Your task to perform on an android device: add a contact Image 0: 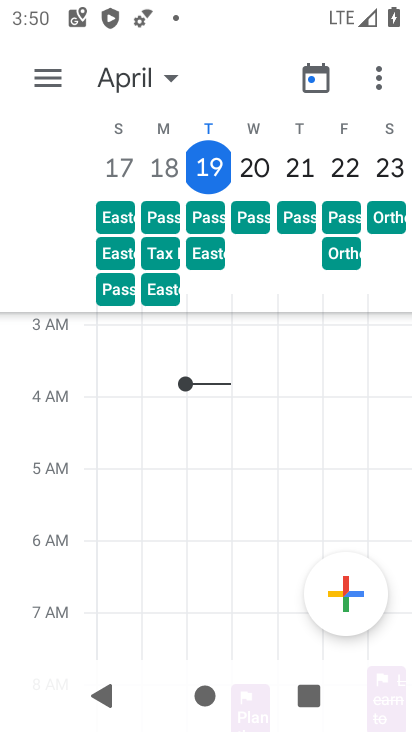
Step 0: press home button
Your task to perform on an android device: add a contact Image 1: 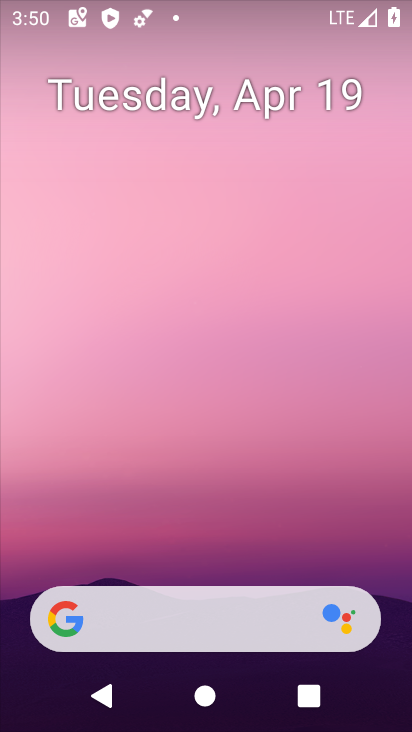
Step 1: drag from (240, 535) to (324, 131)
Your task to perform on an android device: add a contact Image 2: 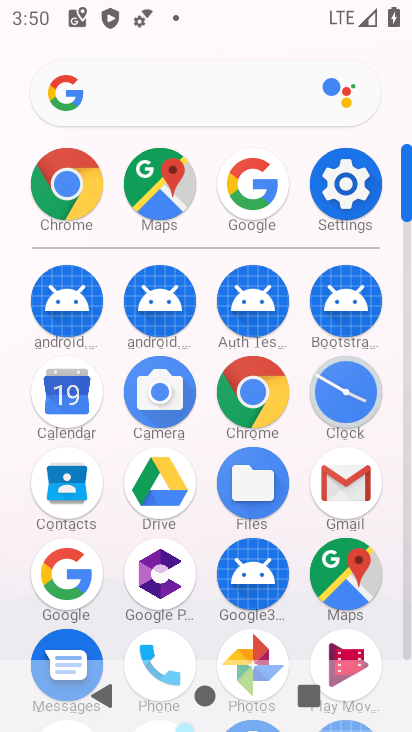
Step 2: click (64, 482)
Your task to perform on an android device: add a contact Image 3: 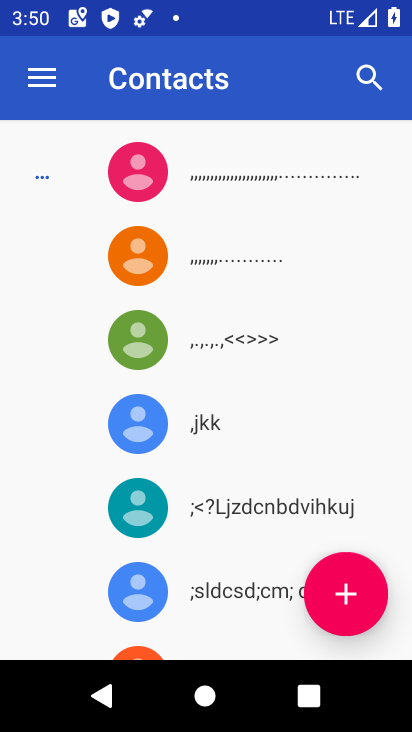
Step 3: click (341, 591)
Your task to perform on an android device: add a contact Image 4: 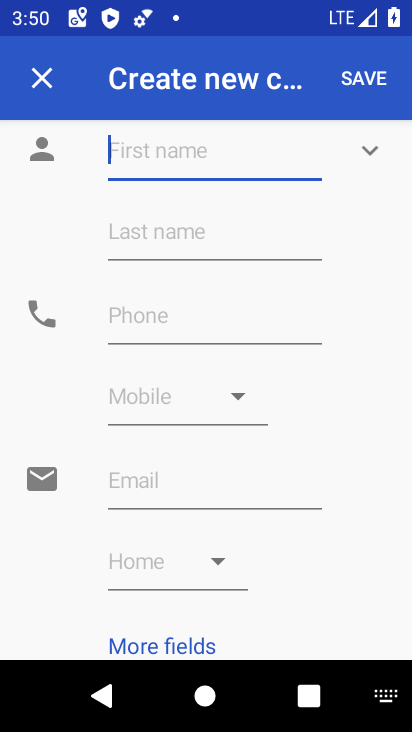
Step 4: click (203, 167)
Your task to perform on an android device: add a contact Image 5: 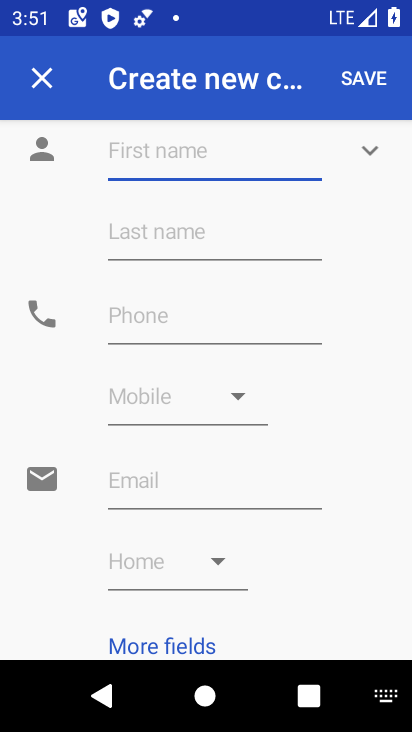
Step 5: type "Shahnawzudiqui"
Your task to perform on an android device: add a contact Image 6: 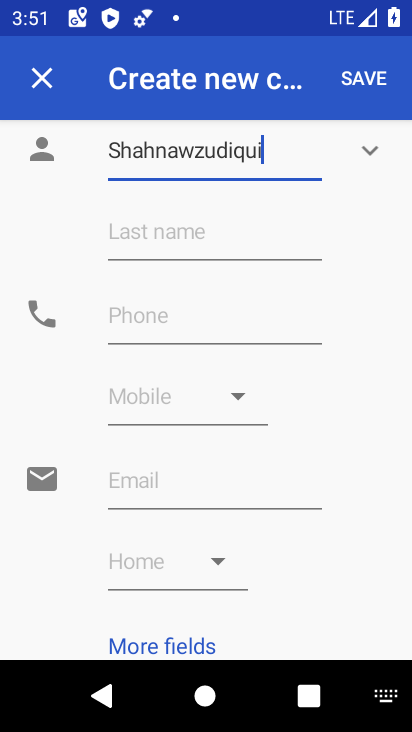
Step 6: type "Hussain"
Your task to perform on an android device: add a contact Image 7: 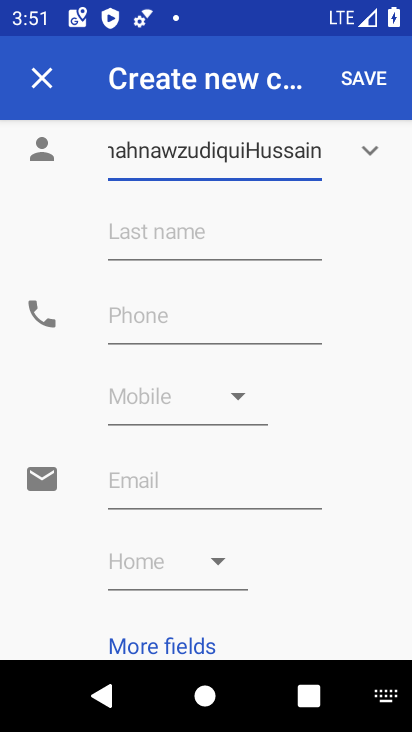
Step 7: click (137, 241)
Your task to perform on an android device: add a contact Image 8: 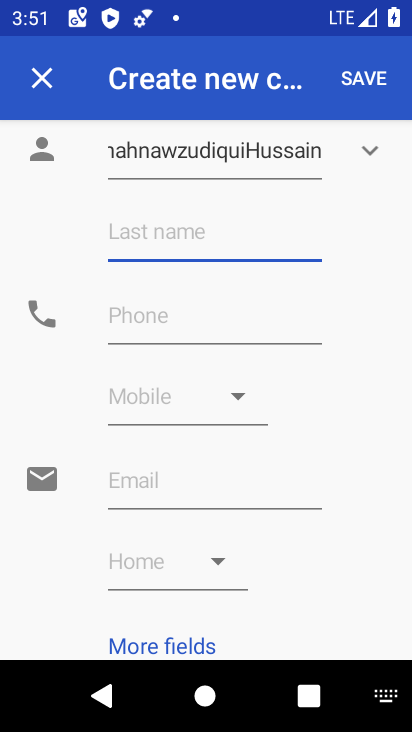
Step 8: type "Iqbal"
Your task to perform on an android device: add a contact Image 9: 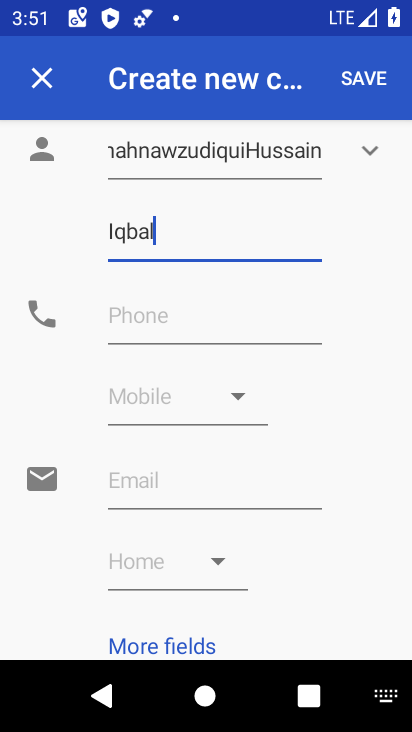
Step 9: type ""
Your task to perform on an android device: add a contact Image 10: 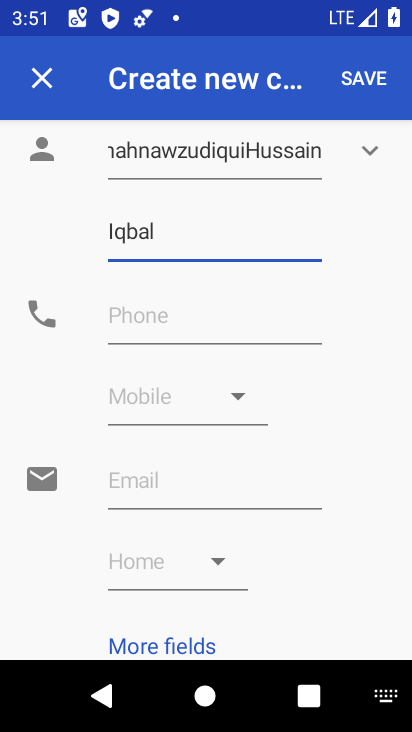
Step 10: click (174, 327)
Your task to perform on an android device: add a contact Image 11: 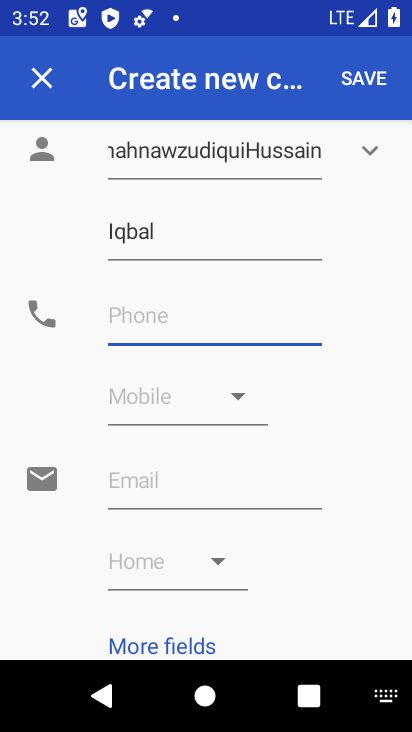
Step 11: type "00998877665544"
Your task to perform on an android device: add a contact Image 12: 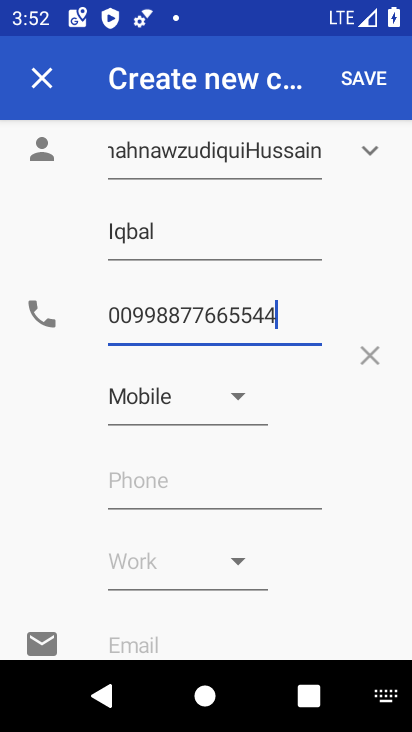
Step 12: type ""
Your task to perform on an android device: add a contact Image 13: 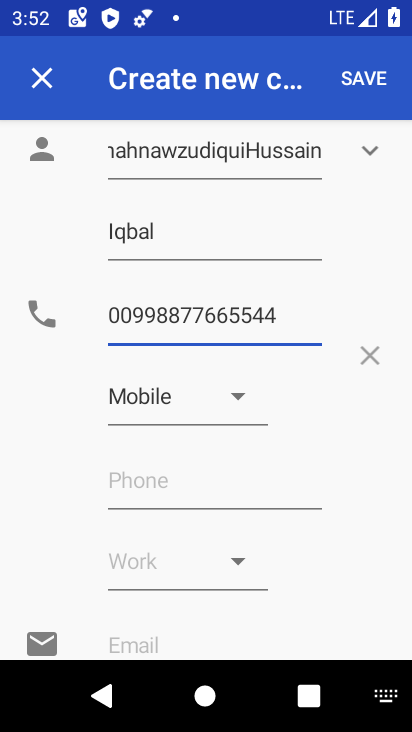
Step 13: click (378, 78)
Your task to perform on an android device: add a contact Image 14: 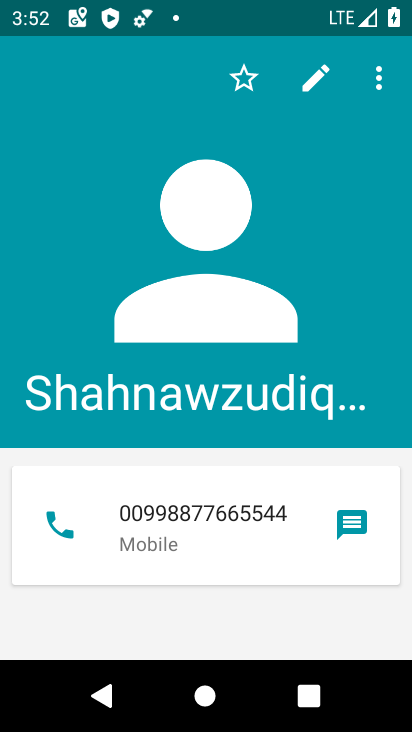
Step 14: task complete